Your task to perform on an android device: Open settings on Google Maps Image 0: 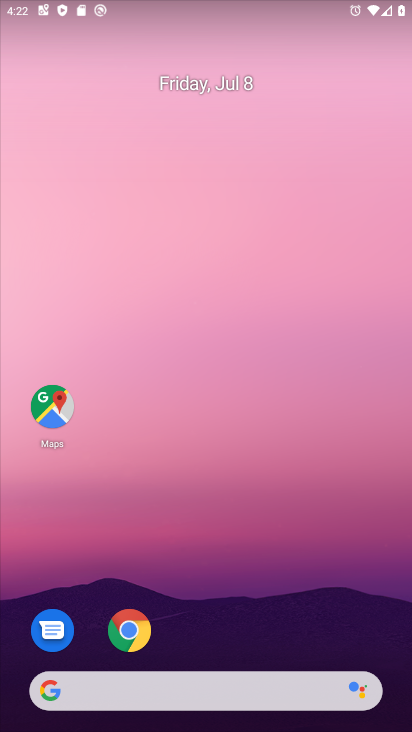
Step 0: click (52, 408)
Your task to perform on an android device: Open settings on Google Maps Image 1: 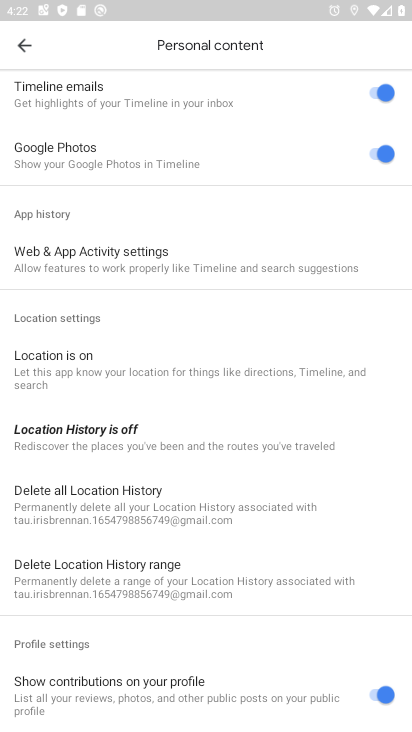
Step 1: press back button
Your task to perform on an android device: Open settings on Google Maps Image 2: 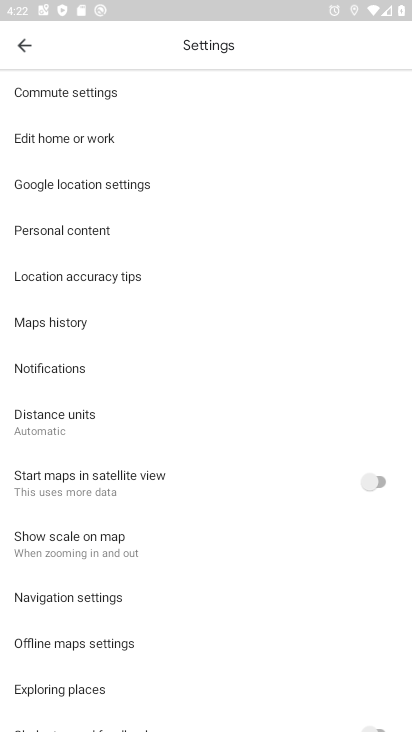
Step 2: press back button
Your task to perform on an android device: Open settings on Google Maps Image 3: 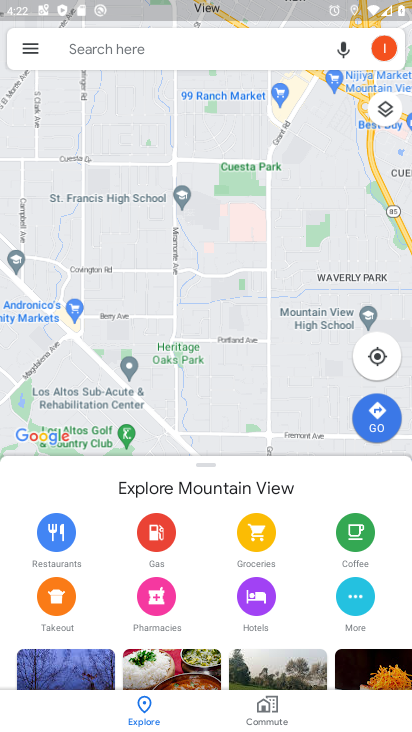
Step 3: click (33, 55)
Your task to perform on an android device: Open settings on Google Maps Image 4: 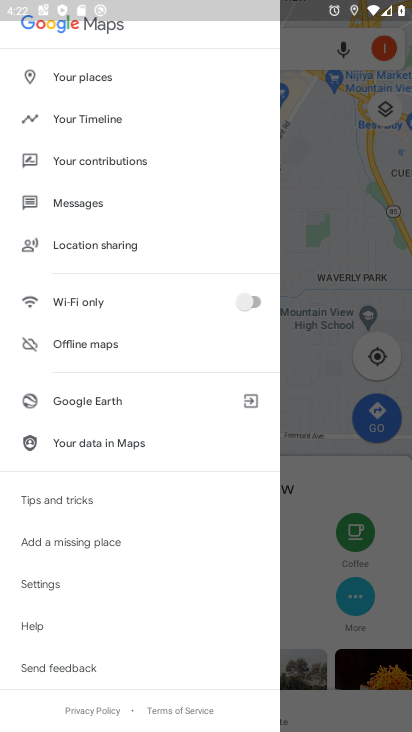
Step 4: click (51, 589)
Your task to perform on an android device: Open settings on Google Maps Image 5: 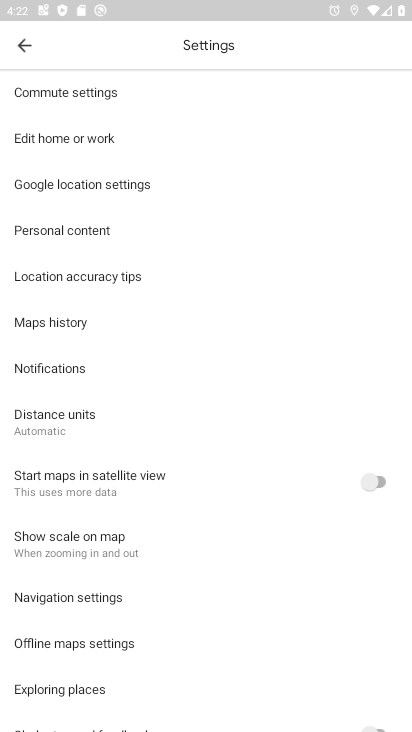
Step 5: task complete